Your task to perform on an android device: Open battery settings Image 0: 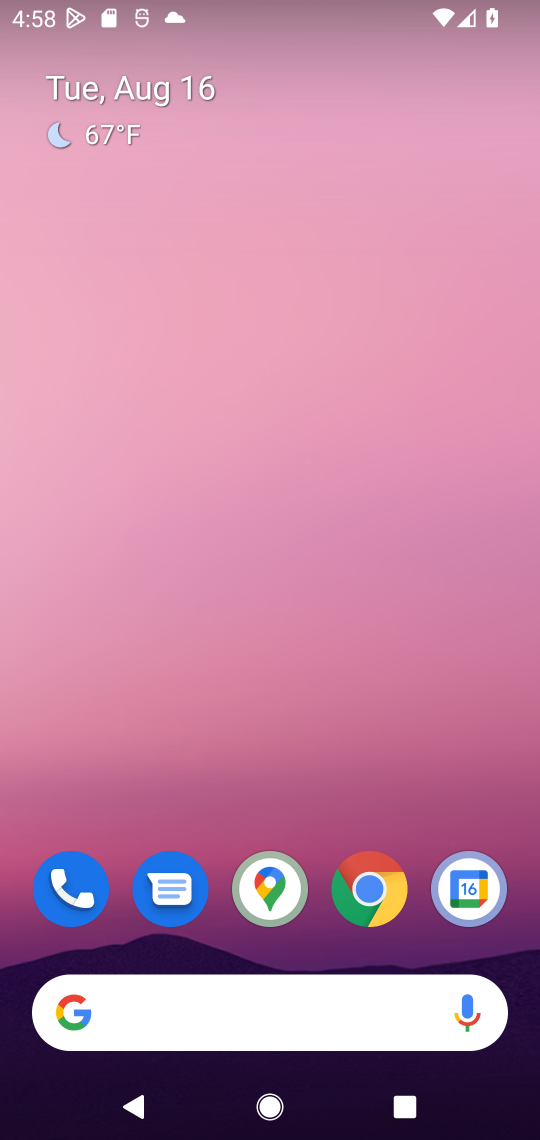
Step 0: drag from (196, 726) to (158, 182)
Your task to perform on an android device: Open battery settings Image 1: 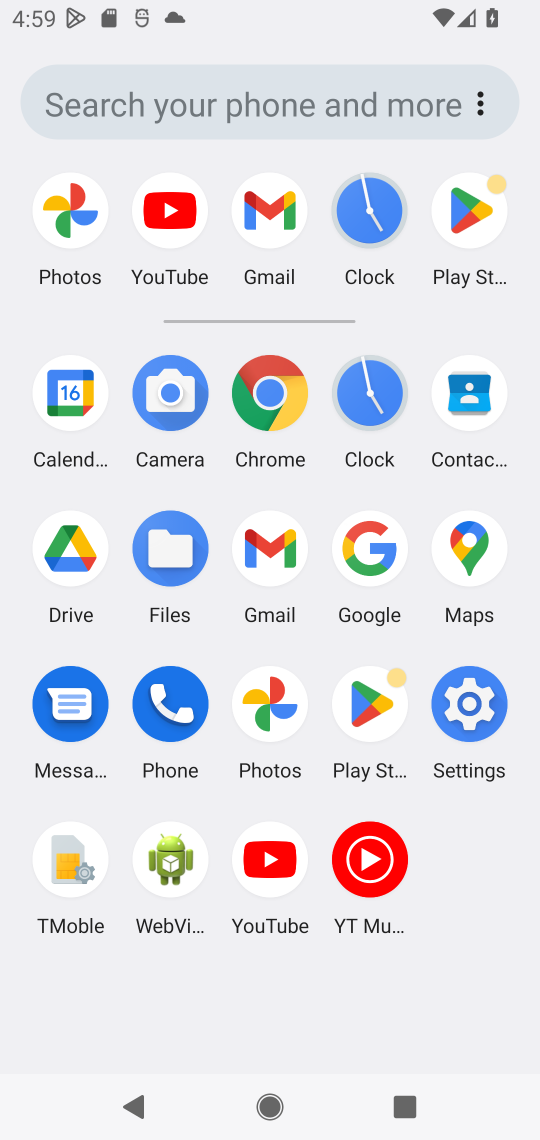
Step 1: click (491, 703)
Your task to perform on an android device: Open battery settings Image 2: 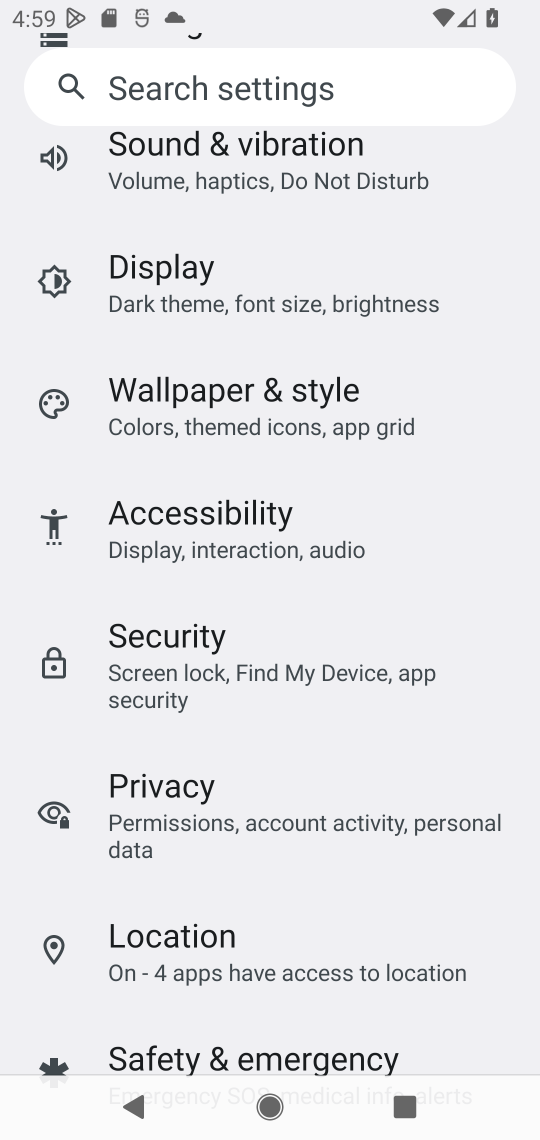
Step 2: task complete